Your task to perform on an android device: Open calendar and show me the third week of next month Image 0: 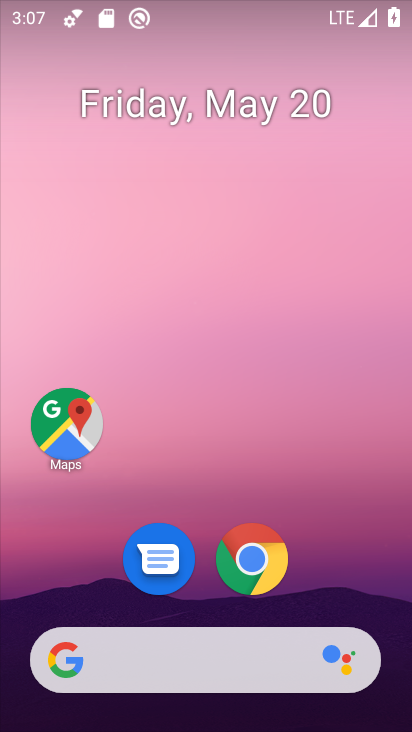
Step 0: drag from (219, 434) to (201, 18)
Your task to perform on an android device: Open calendar and show me the third week of next month Image 1: 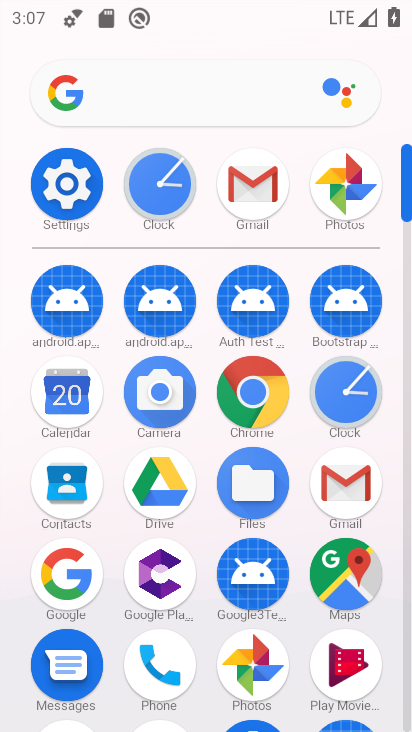
Step 1: click (61, 389)
Your task to perform on an android device: Open calendar and show me the third week of next month Image 2: 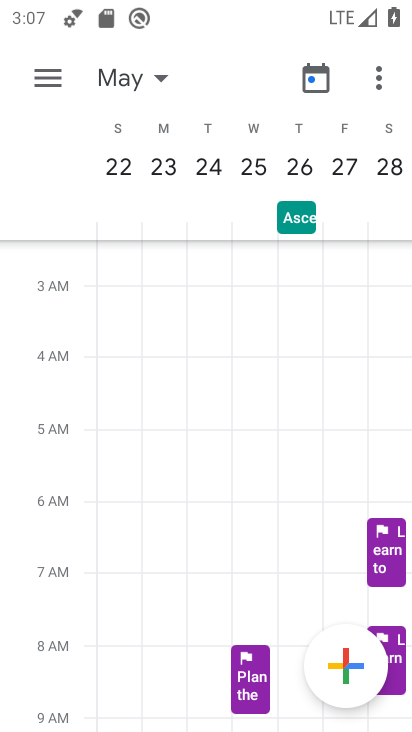
Step 2: task complete